Your task to perform on an android device: What's on my calendar tomorrow? Image 0: 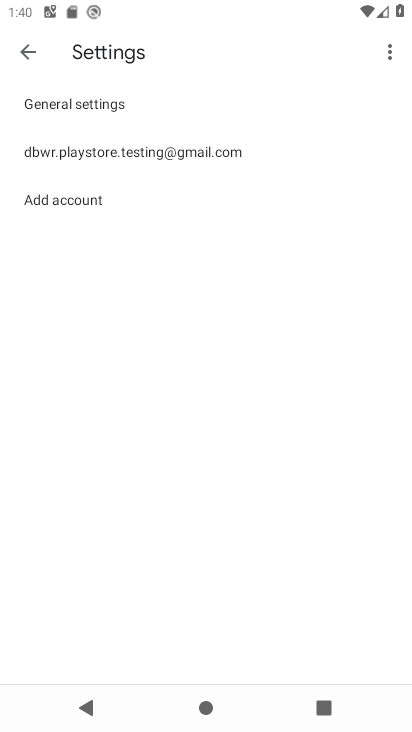
Step 0: press home button
Your task to perform on an android device: What's on my calendar tomorrow? Image 1: 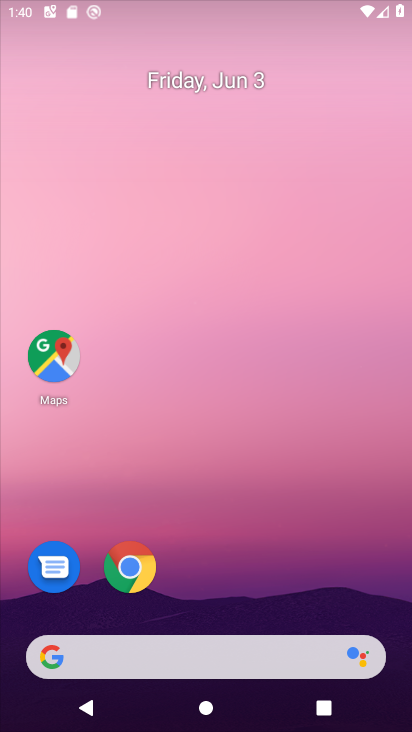
Step 1: drag from (198, 639) to (203, 273)
Your task to perform on an android device: What's on my calendar tomorrow? Image 2: 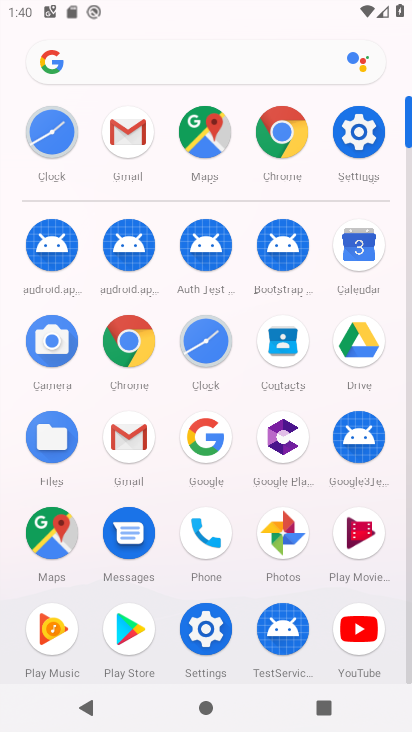
Step 2: click (344, 249)
Your task to perform on an android device: What's on my calendar tomorrow? Image 3: 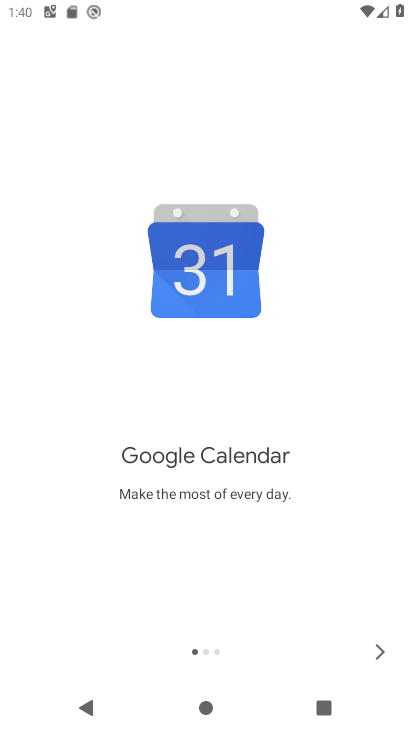
Step 3: click (363, 656)
Your task to perform on an android device: What's on my calendar tomorrow? Image 4: 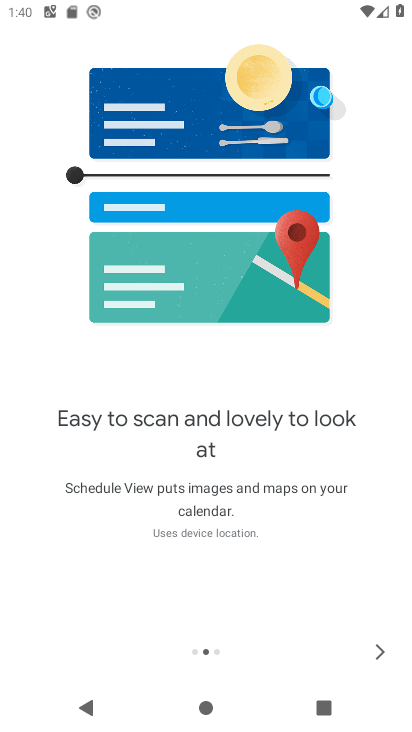
Step 4: click (367, 651)
Your task to perform on an android device: What's on my calendar tomorrow? Image 5: 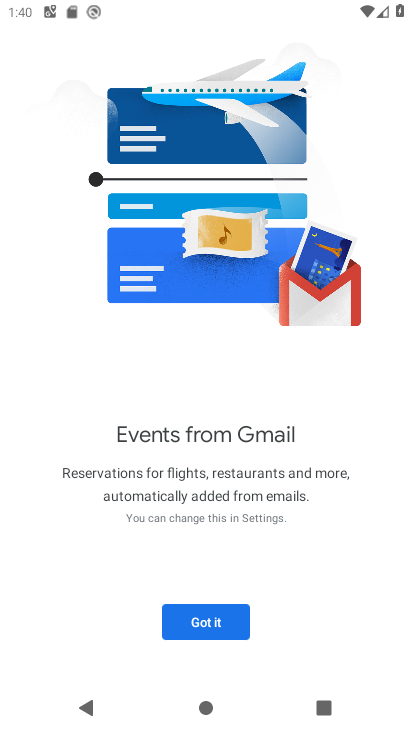
Step 5: click (204, 617)
Your task to perform on an android device: What's on my calendar tomorrow? Image 6: 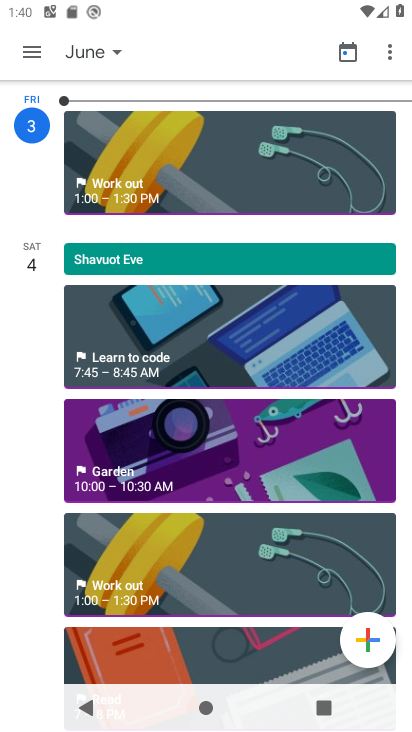
Step 6: click (32, 39)
Your task to perform on an android device: What's on my calendar tomorrow? Image 7: 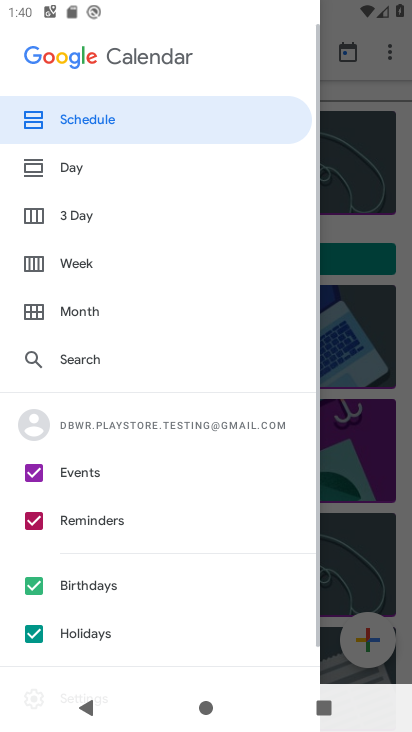
Step 7: click (80, 259)
Your task to perform on an android device: What's on my calendar tomorrow? Image 8: 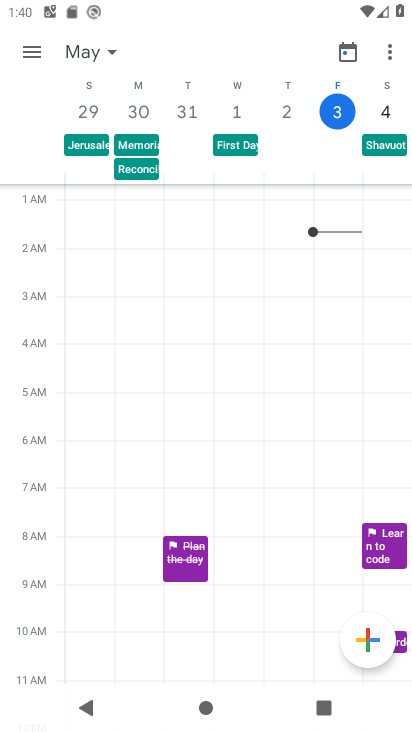
Step 8: click (371, 106)
Your task to perform on an android device: What's on my calendar tomorrow? Image 9: 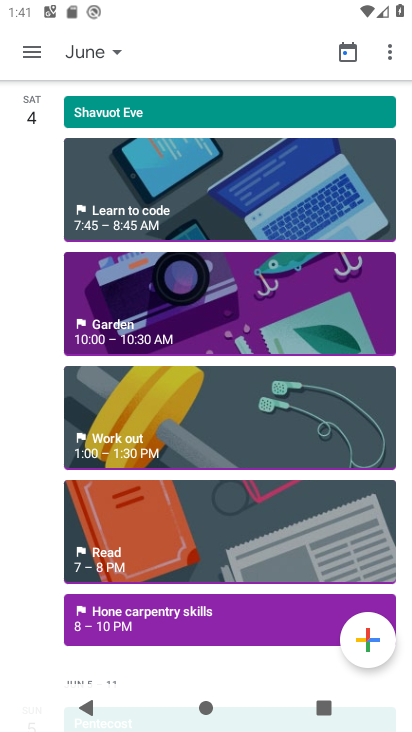
Step 9: task complete